Your task to perform on an android device: change timer sound Image 0: 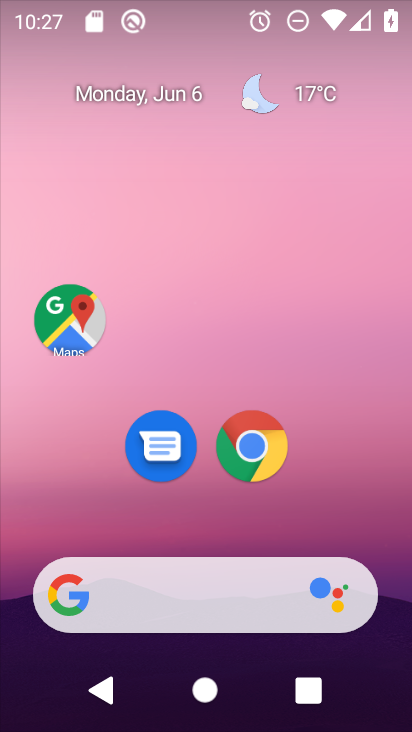
Step 0: drag from (215, 513) to (308, 26)
Your task to perform on an android device: change timer sound Image 1: 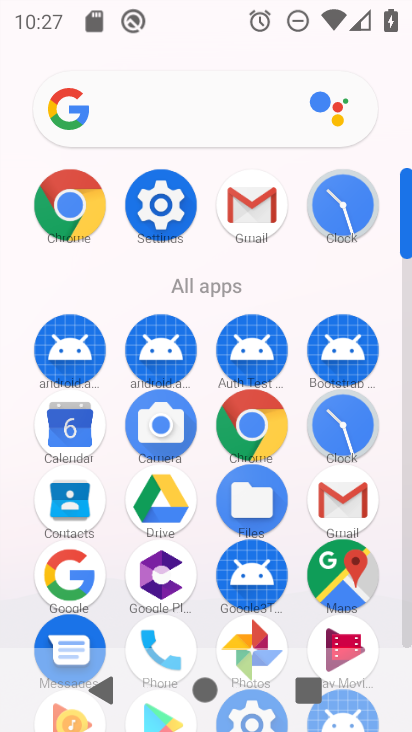
Step 1: click (348, 310)
Your task to perform on an android device: change timer sound Image 2: 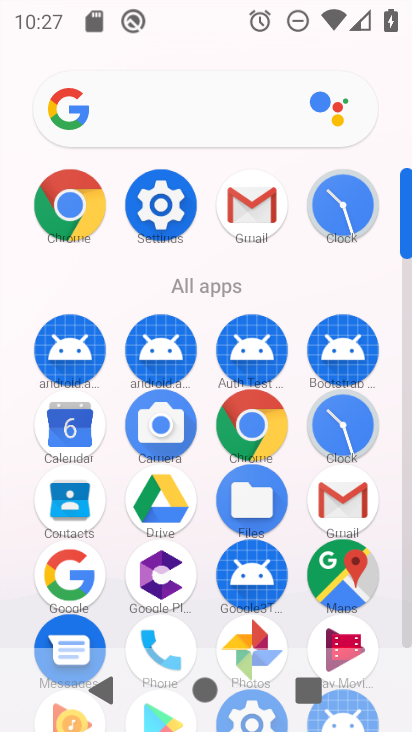
Step 2: click (338, 233)
Your task to perform on an android device: change timer sound Image 3: 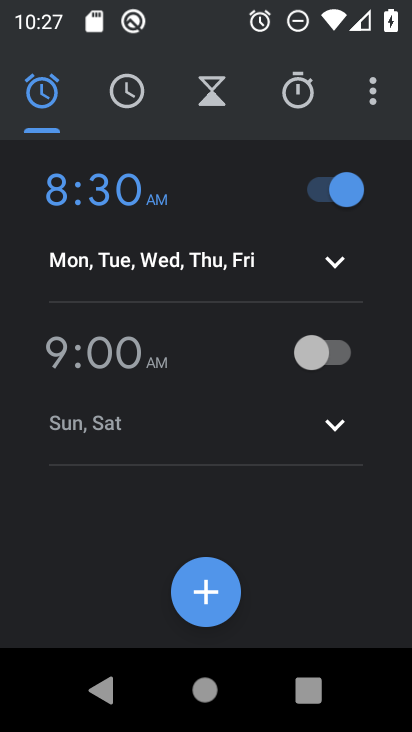
Step 3: click (373, 87)
Your task to perform on an android device: change timer sound Image 4: 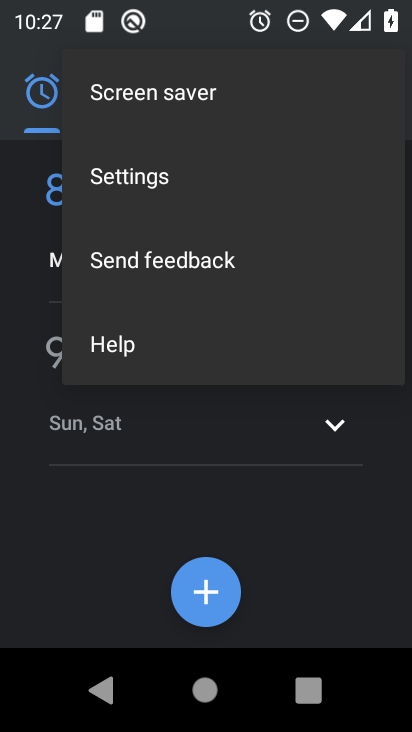
Step 4: click (148, 167)
Your task to perform on an android device: change timer sound Image 5: 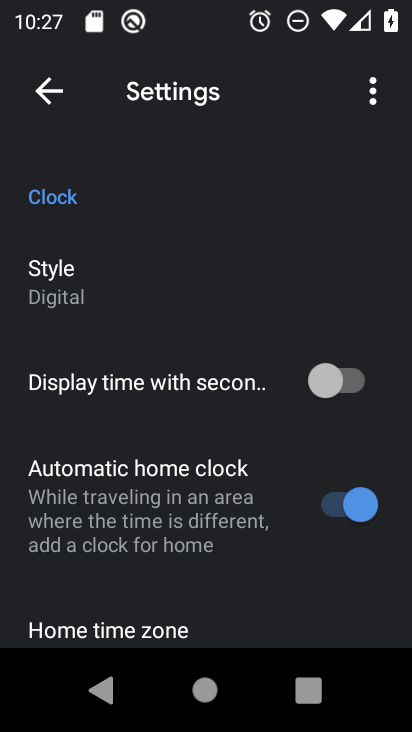
Step 5: drag from (121, 599) to (248, 9)
Your task to perform on an android device: change timer sound Image 6: 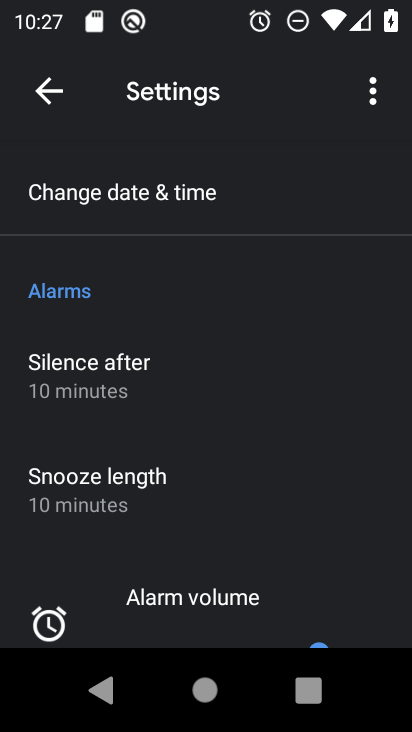
Step 6: drag from (155, 558) to (141, 184)
Your task to perform on an android device: change timer sound Image 7: 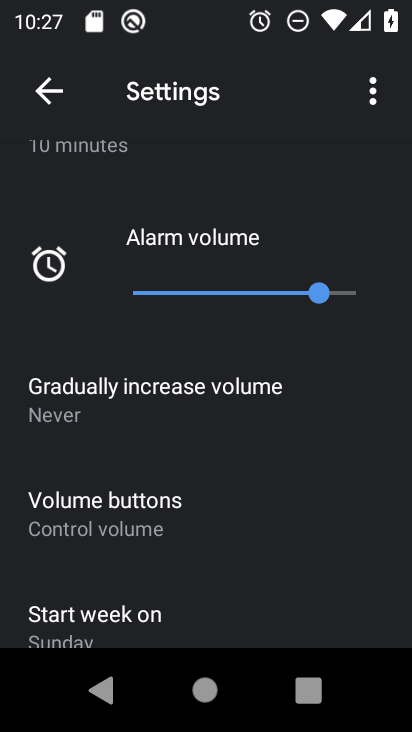
Step 7: drag from (95, 591) to (100, 207)
Your task to perform on an android device: change timer sound Image 8: 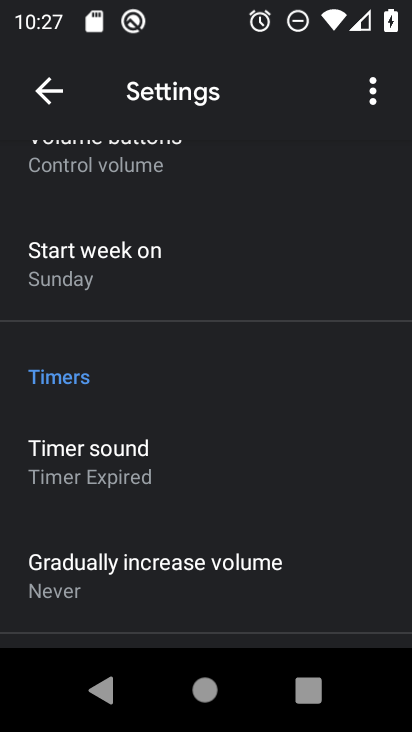
Step 8: drag from (60, 532) to (123, 234)
Your task to perform on an android device: change timer sound Image 9: 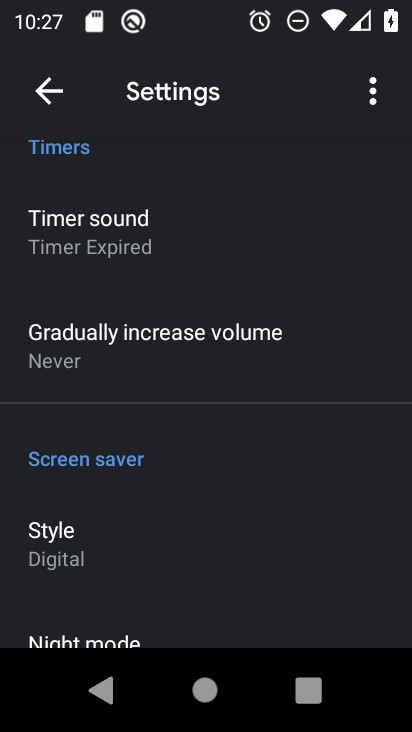
Step 9: click (93, 350)
Your task to perform on an android device: change timer sound Image 10: 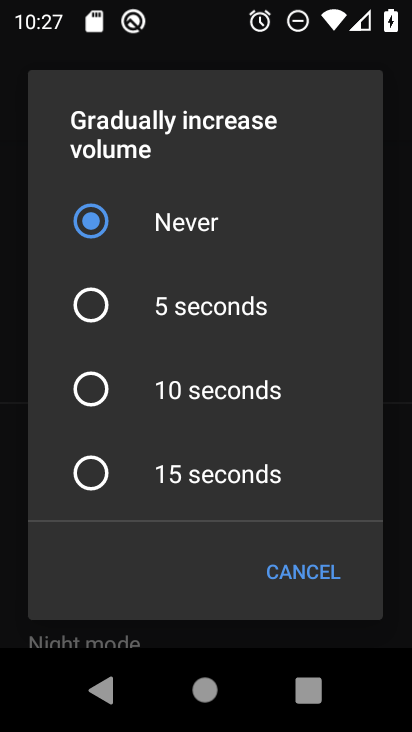
Step 10: click (282, 576)
Your task to perform on an android device: change timer sound Image 11: 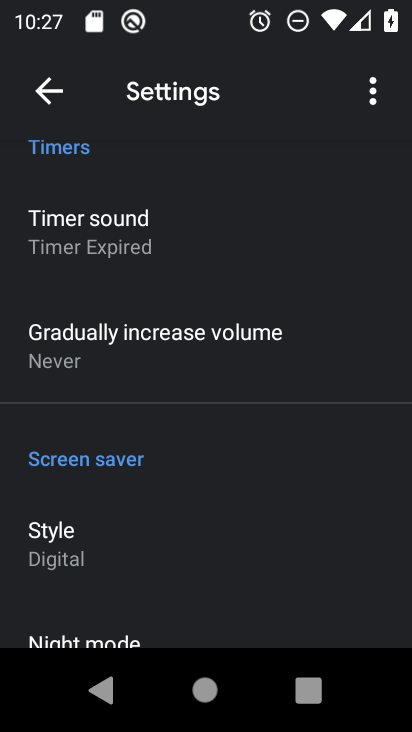
Step 11: click (172, 255)
Your task to perform on an android device: change timer sound Image 12: 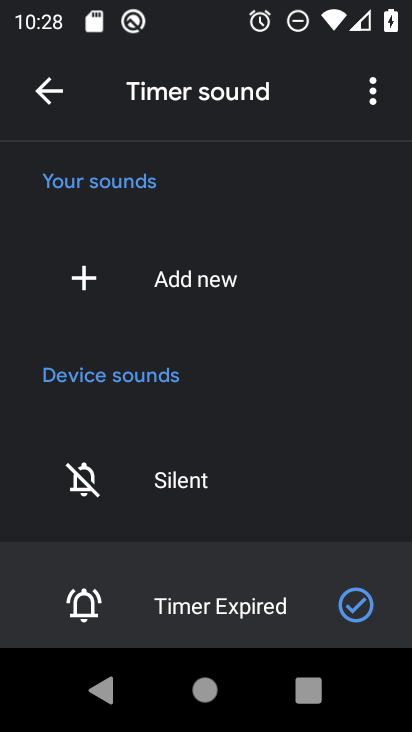
Step 12: drag from (167, 516) to (274, 20)
Your task to perform on an android device: change timer sound Image 13: 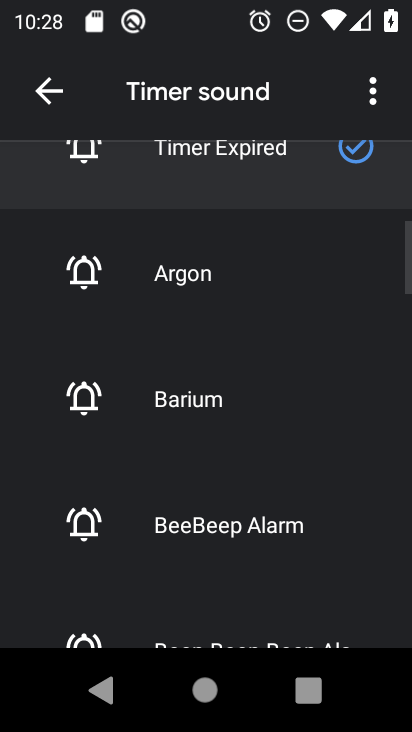
Step 13: click (123, 559)
Your task to perform on an android device: change timer sound Image 14: 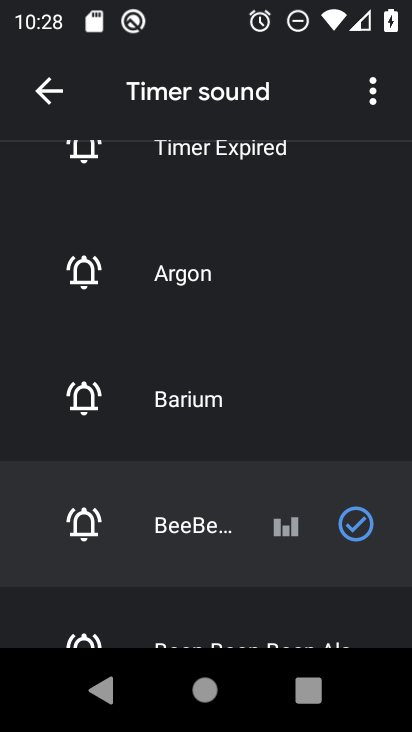
Step 14: task complete